Your task to perform on an android device: see sites visited before in the chrome app Image 0: 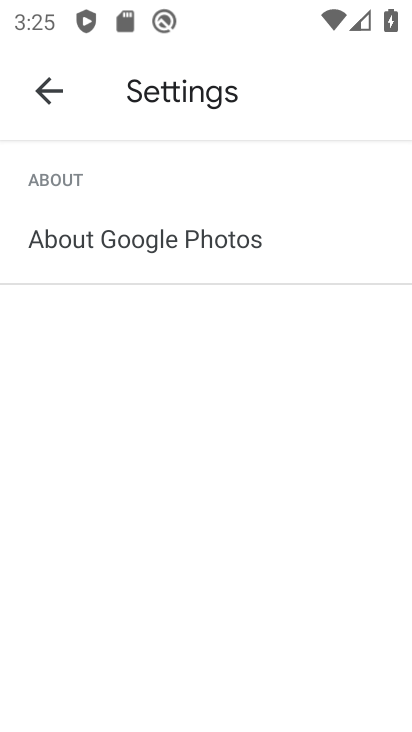
Step 0: press home button
Your task to perform on an android device: see sites visited before in the chrome app Image 1: 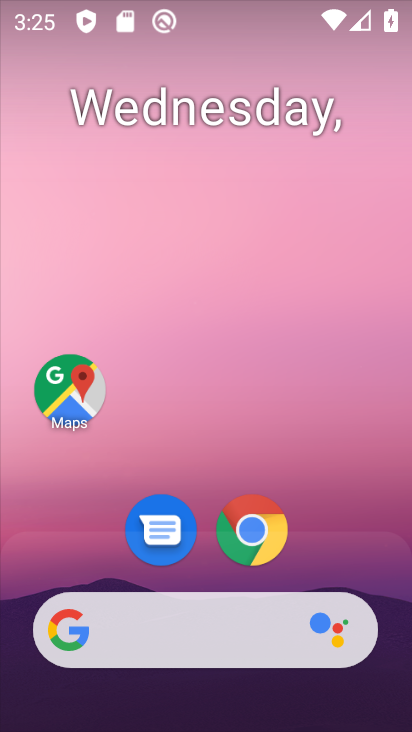
Step 1: drag from (369, 537) to (366, 110)
Your task to perform on an android device: see sites visited before in the chrome app Image 2: 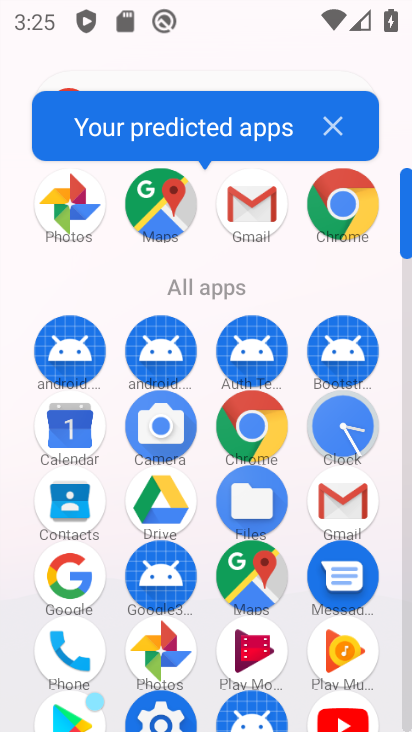
Step 2: click (258, 439)
Your task to perform on an android device: see sites visited before in the chrome app Image 3: 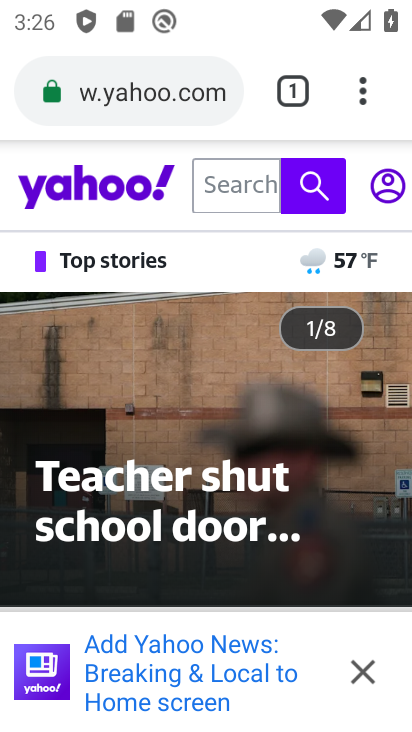
Step 3: drag from (364, 88) to (124, 533)
Your task to perform on an android device: see sites visited before in the chrome app Image 4: 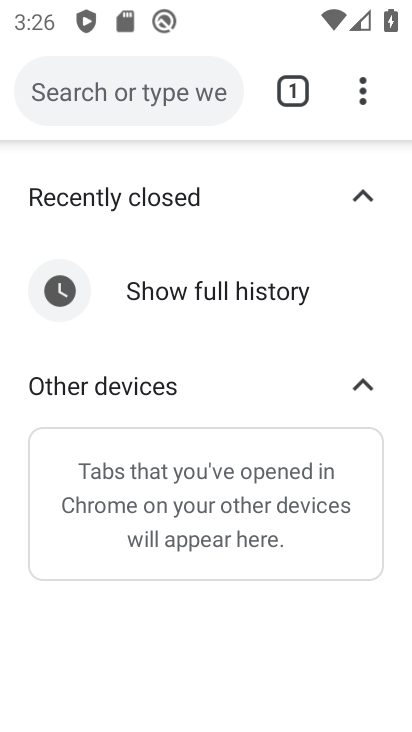
Step 4: press home button
Your task to perform on an android device: see sites visited before in the chrome app Image 5: 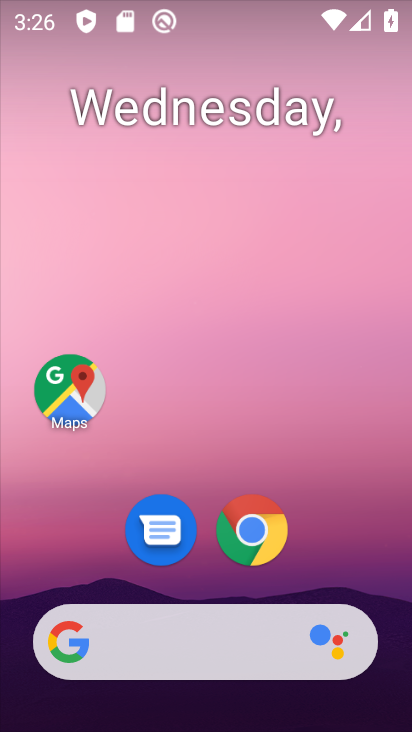
Step 5: click (265, 536)
Your task to perform on an android device: see sites visited before in the chrome app Image 6: 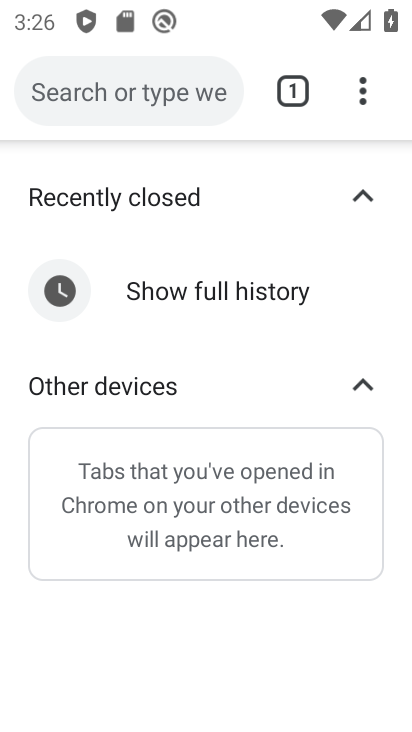
Step 6: task complete